Your task to perform on an android device: Open the calendar app, open the side menu, and click the "Day" option Image 0: 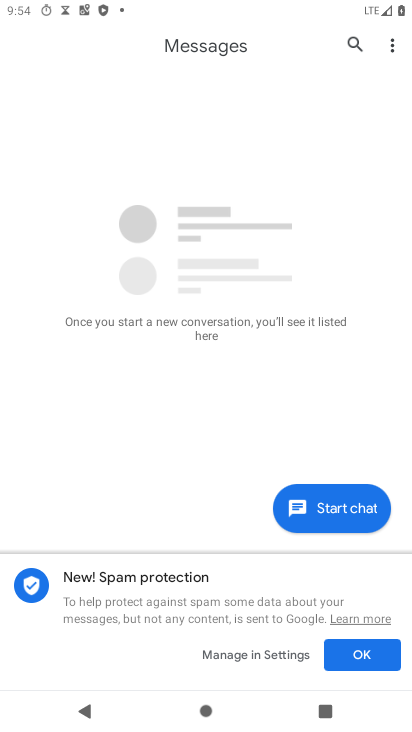
Step 0: press back button
Your task to perform on an android device: Open the calendar app, open the side menu, and click the "Day" option Image 1: 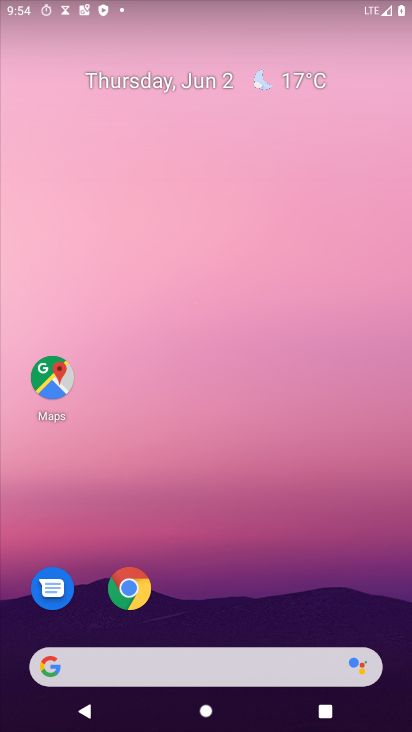
Step 1: drag from (200, 604) to (260, 115)
Your task to perform on an android device: Open the calendar app, open the side menu, and click the "Day" option Image 2: 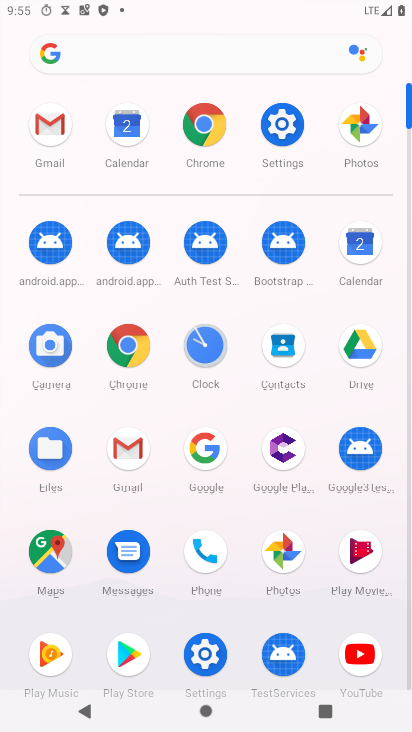
Step 2: click (354, 245)
Your task to perform on an android device: Open the calendar app, open the side menu, and click the "Day" option Image 3: 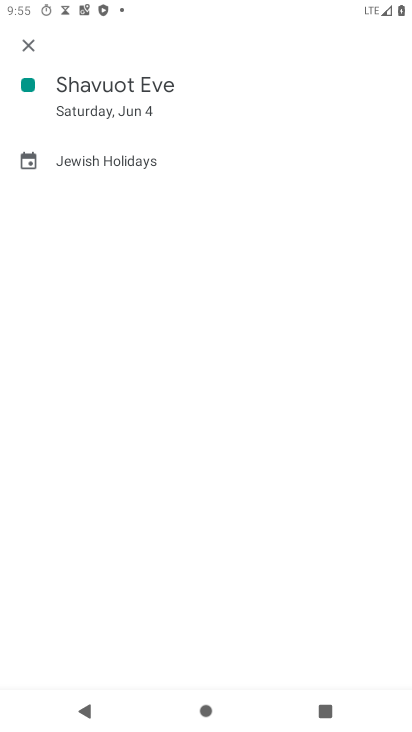
Step 3: click (23, 41)
Your task to perform on an android device: Open the calendar app, open the side menu, and click the "Day" option Image 4: 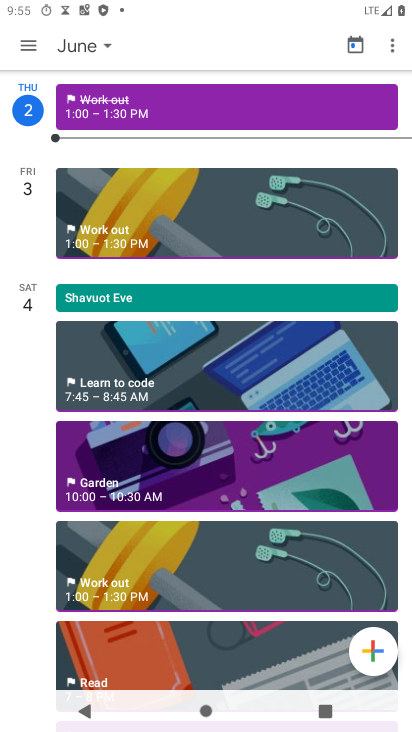
Step 4: click (23, 41)
Your task to perform on an android device: Open the calendar app, open the side menu, and click the "Day" option Image 5: 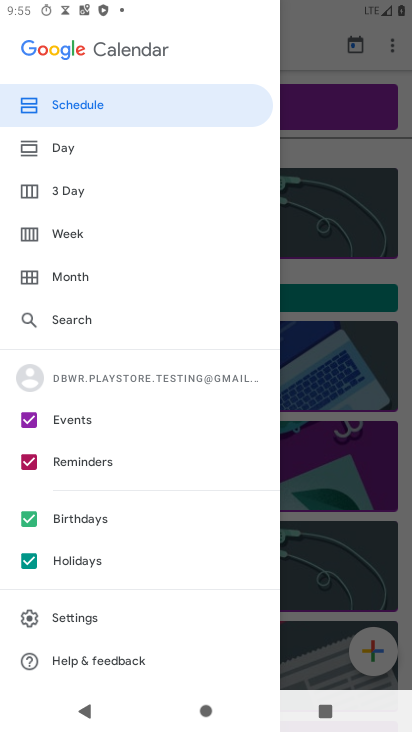
Step 5: click (64, 141)
Your task to perform on an android device: Open the calendar app, open the side menu, and click the "Day" option Image 6: 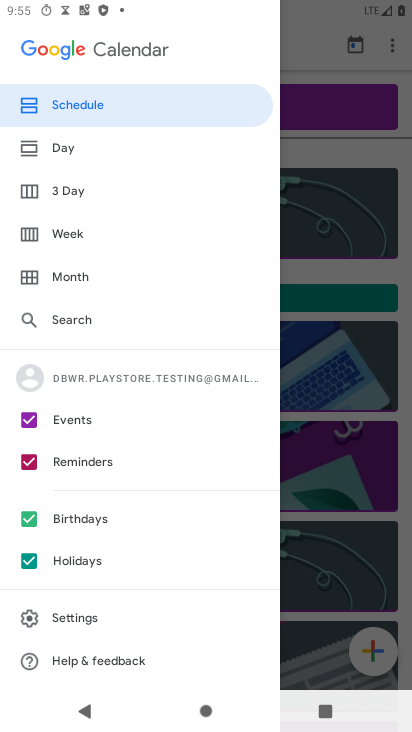
Step 6: click (97, 154)
Your task to perform on an android device: Open the calendar app, open the side menu, and click the "Day" option Image 7: 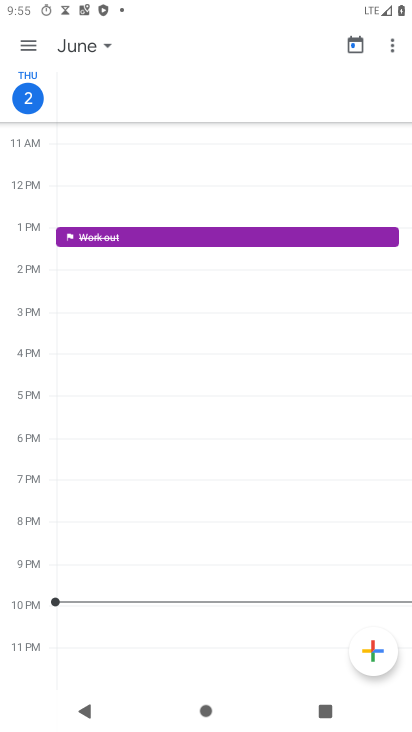
Step 7: task complete